Your task to perform on an android device: uninstall "Chime – Mobile Banking" Image 0: 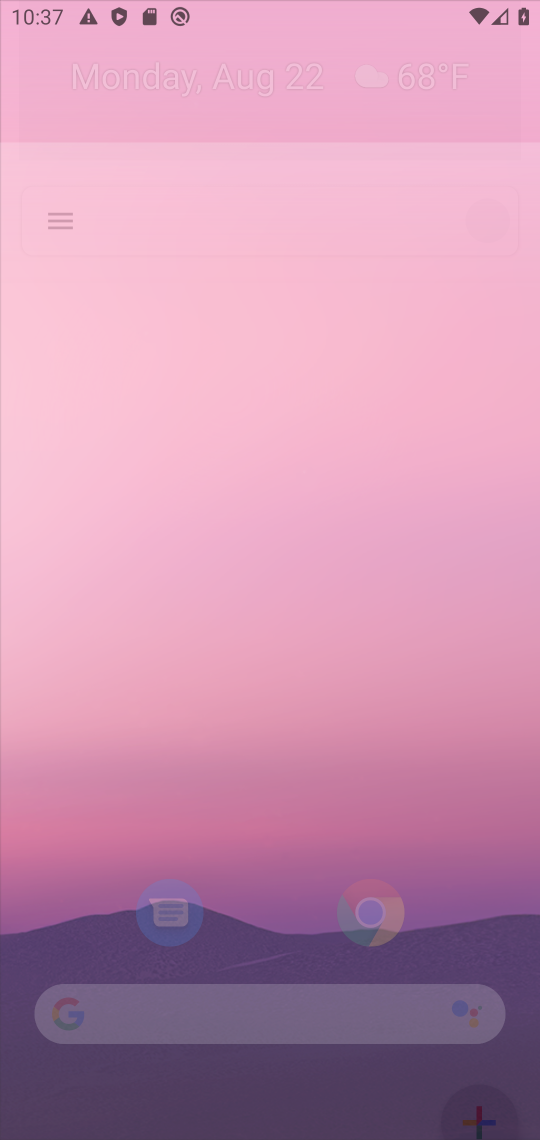
Step 0: press home button
Your task to perform on an android device: uninstall "Chime – Mobile Banking" Image 1: 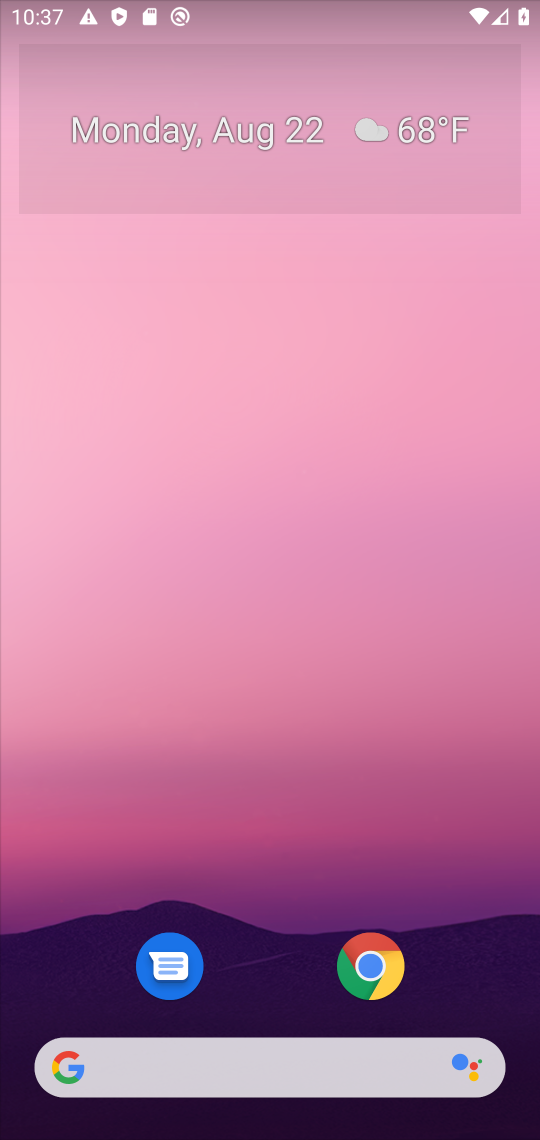
Step 1: drag from (464, 944) to (457, 194)
Your task to perform on an android device: uninstall "Chime – Mobile Banking" Image 2: 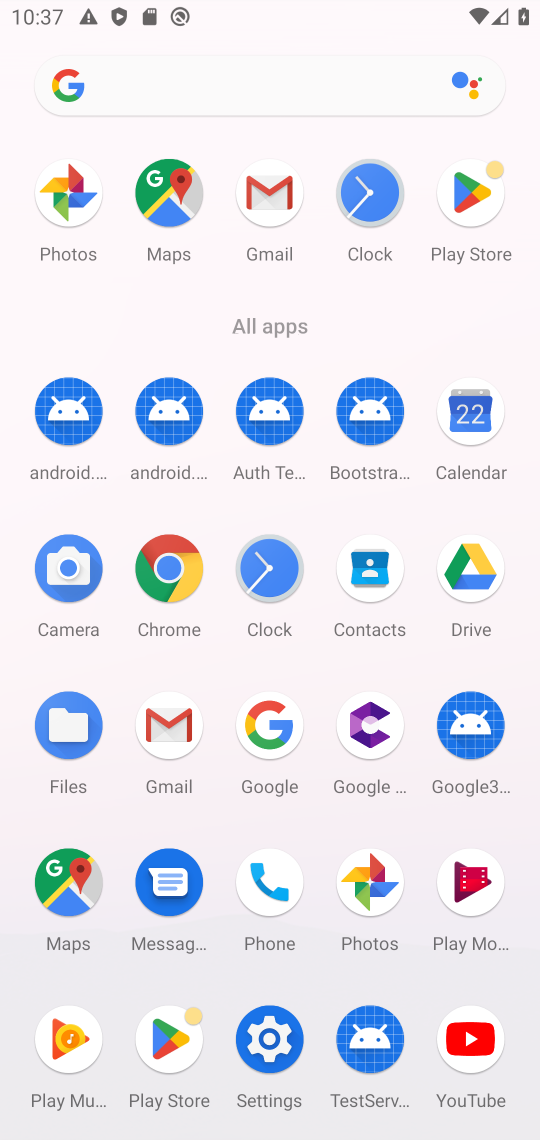
Step 2: click (477, 190)
Your task to perform on an android device: uninstall "Chime – Mobile Banking" Image 3: 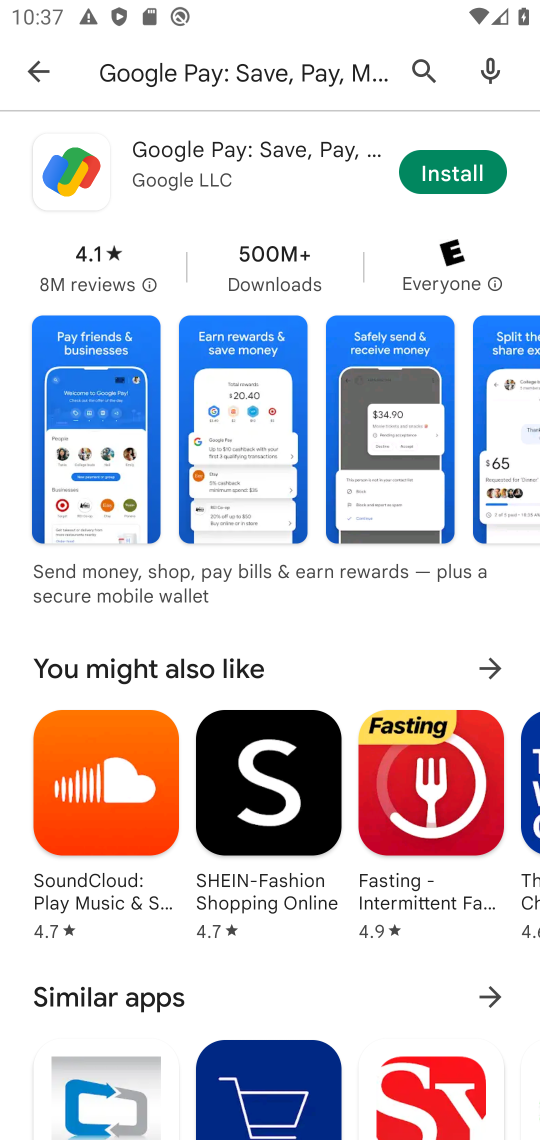
Step 3: press back button
Your task to perform on an android device: uninstall "Chime – Mobile Banking" Image 4: 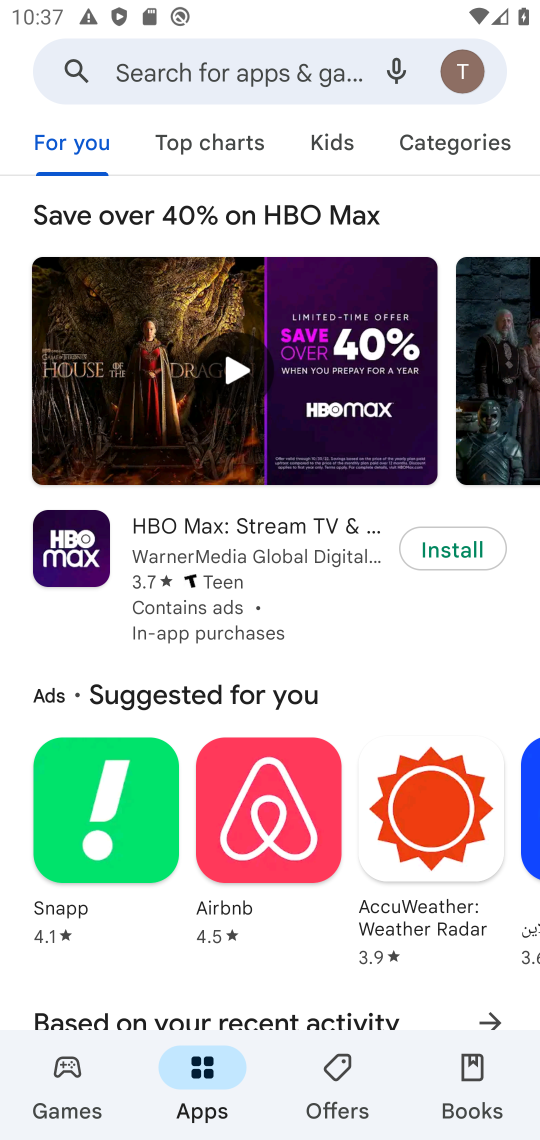
Step 4: click (234, 73)
Your task to perform on an android device: uninstall "Chime – Mobile Banking" Image 5: 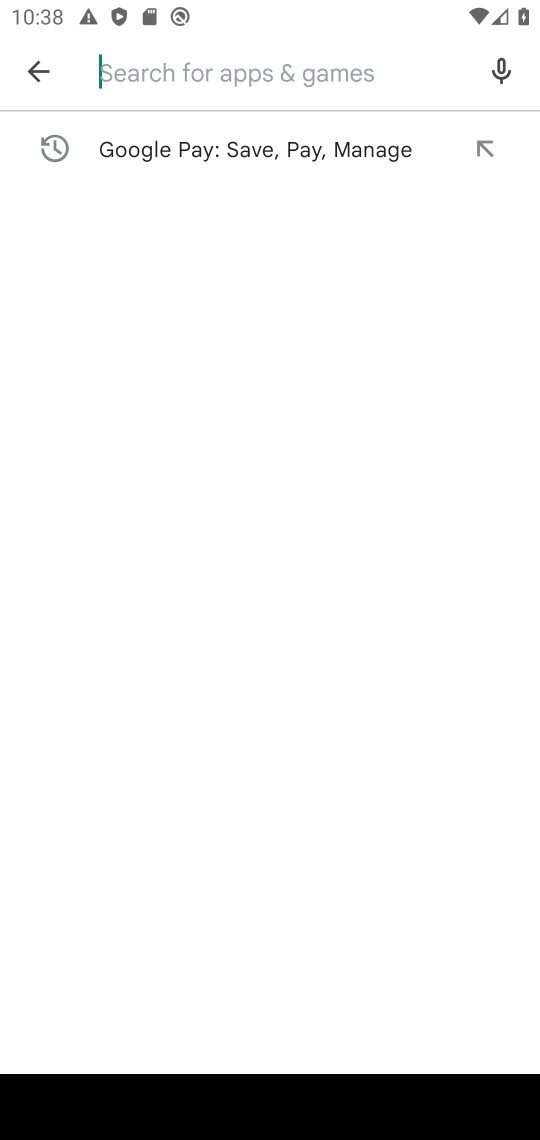
Step 5: type "Chime – Mobile Banking"
Your task to perform on an android device: uninstall "Chime – Mobile Banking" Image 6: 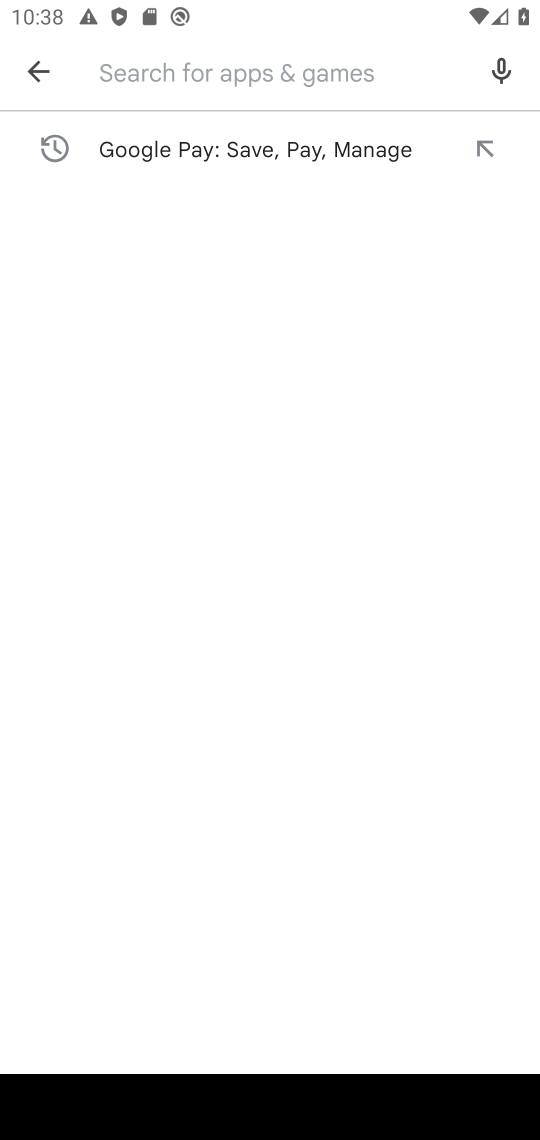
Step 6: press enter
Your task to perform on an android device: uninstall "Chime – Mobile Banking" Image 7: 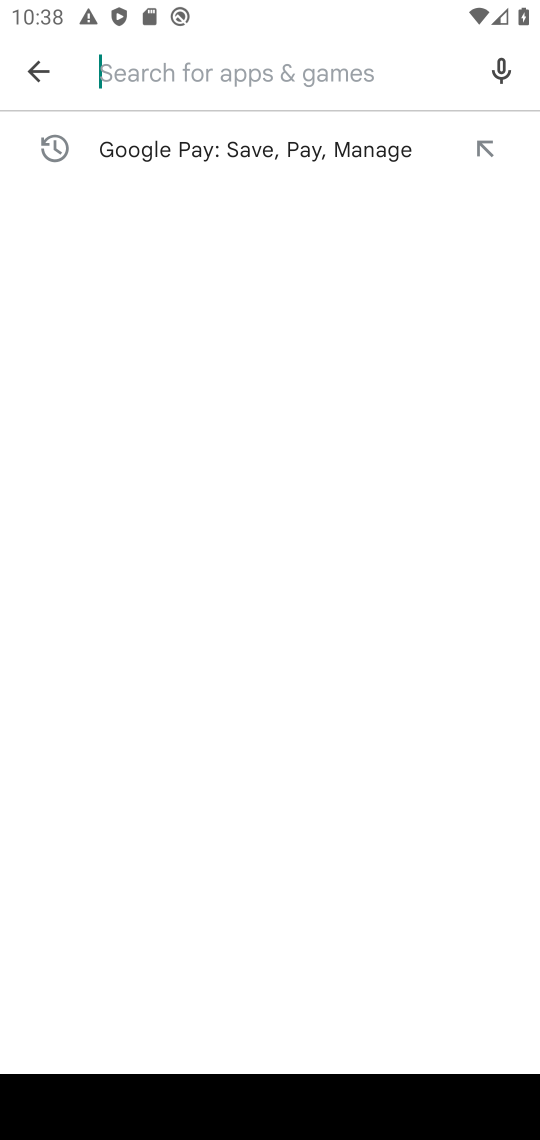
Step 7: type "Chime – Mobile Banking"
Your task to perform on an android device: uninstall "Chime – Mobile Banking" Image 8: 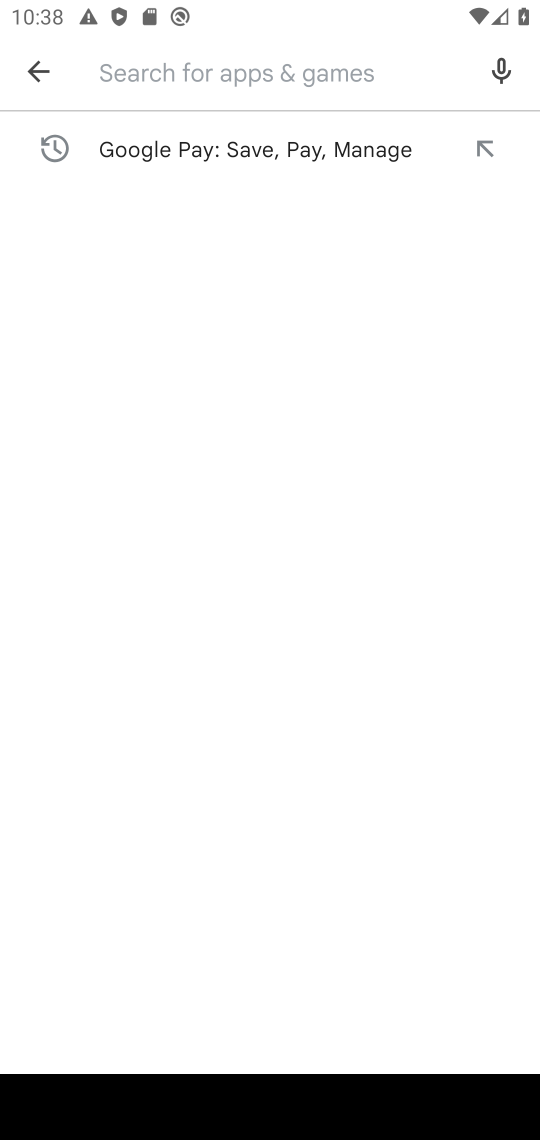
Step 8: task complete